Your task to perform on an android device: open a new tab in the chrome app Image 0: 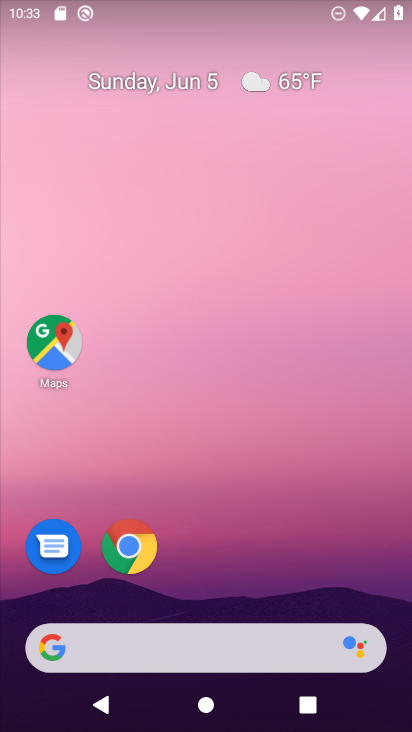
Step 0: drag from (157, 587) to (270, 62)
Your task to perform on an android device: open a new tab in the chrome app Image 1: 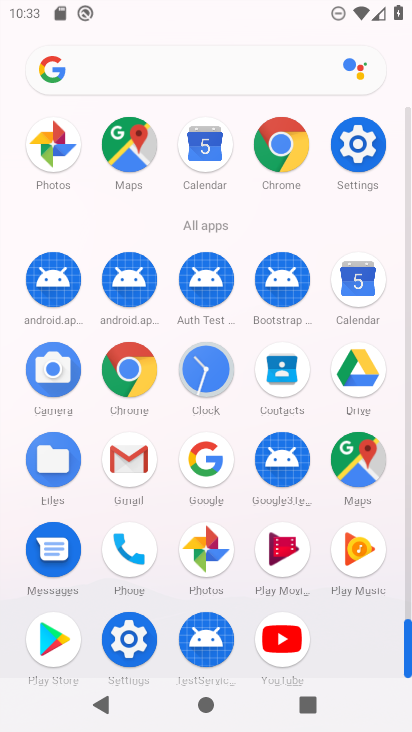
Step 1: click (117, 358)
Your task to perform on an android device: open a new tab in the chrome app Image 2: 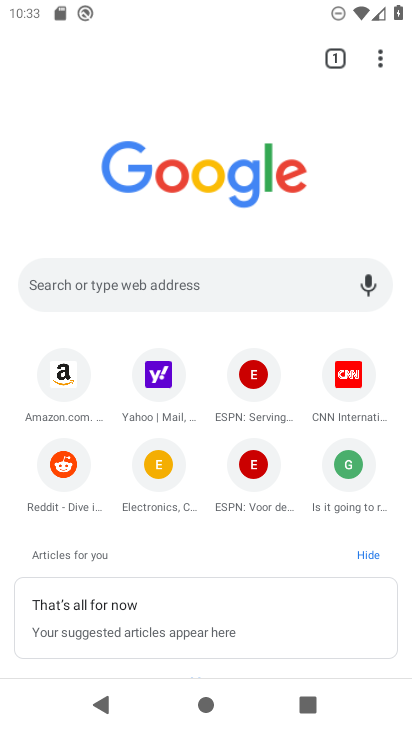
Step 2: click (376, 47)
Your task to perform on an android device: open a new tab in the chrome app Image 3: 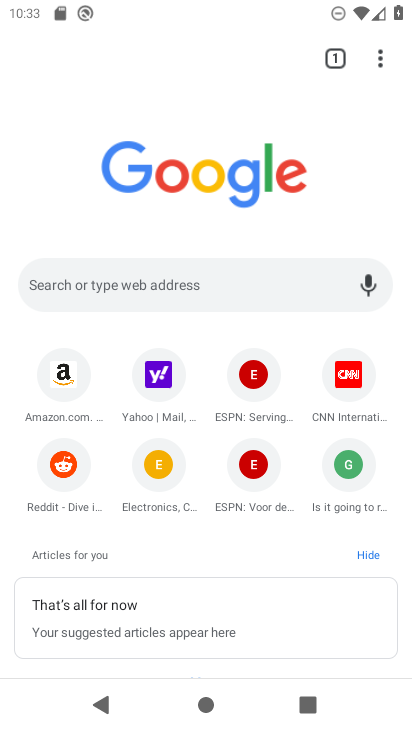
Step 3: task complete